Your task to perform on an android device: add a label to a message in the gmail app Image 0: 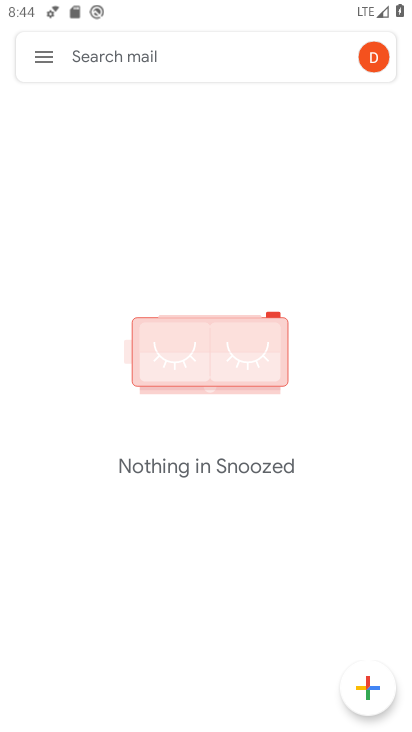
Step 0: press home button
Your task to perform on an android device: add a label to a message in the gmail app Image 1: 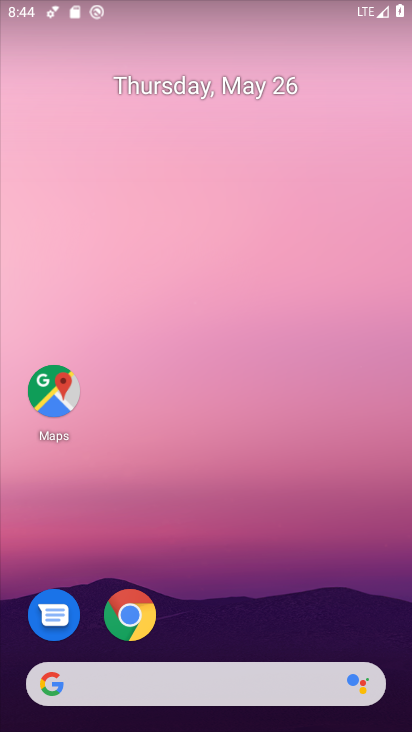
Step 1: drag from (211, 584) to (279, 243)
Your task to perform on an android device: add a label to a message in the gmail app Image 2: 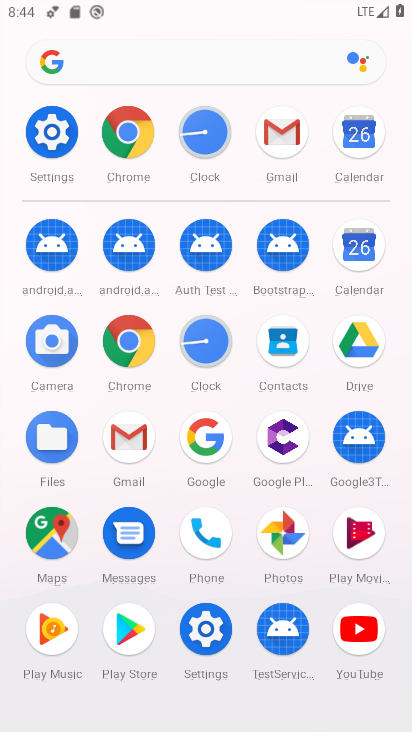
Step 2: click (135, 426)
Your task to perform on an android device: add a label to a message in the gmail app Image 3: 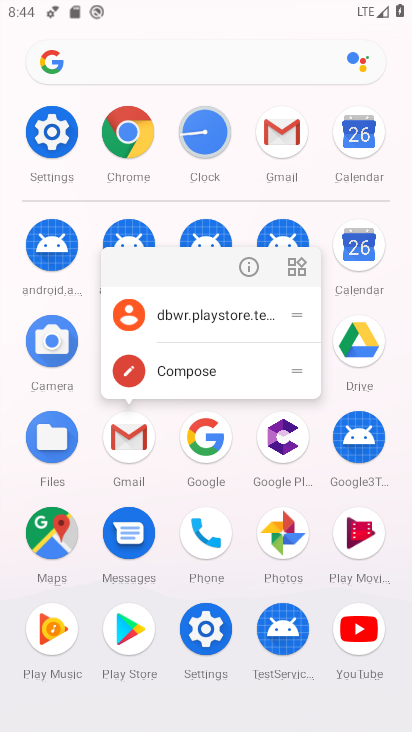
Step 3: click (122, 431)
Your task to perform on an android device: add a label to a message in the gmail app Image 4: 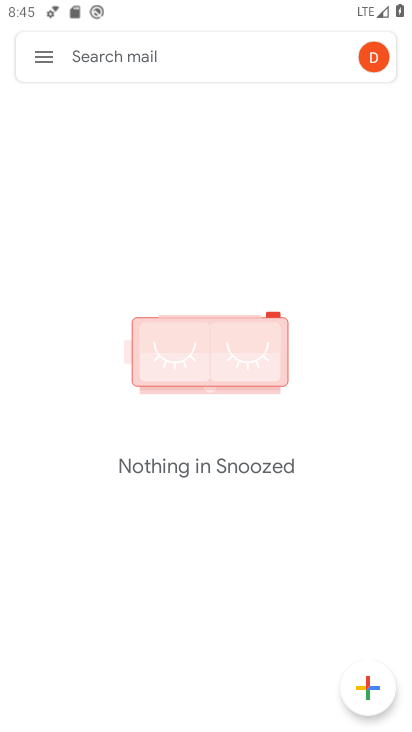
Step 4: click (41, 58)
Your task to perform on an android device: add a label to a message in the gmail app Image 5: 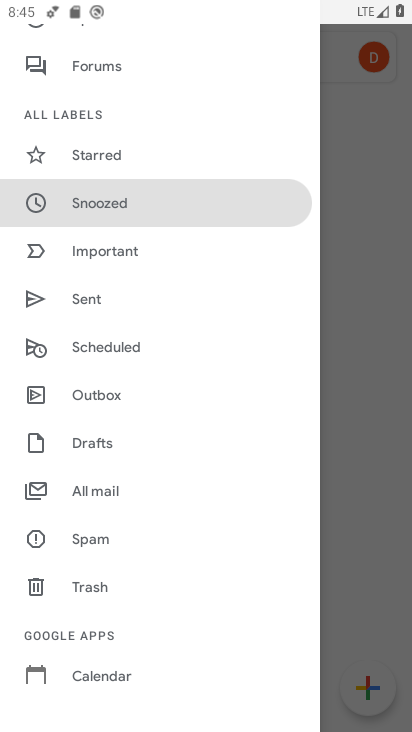
Step 5: click (102, 489)
Your task to perform on an android device: add a label to a message in the gmail app Image 6: 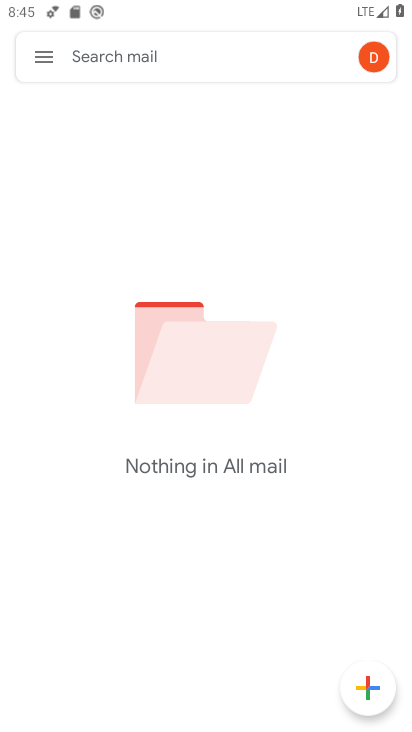
Step 6: task complete